Your task to perform on an android device: snooze an email in the gmail app Image 0: 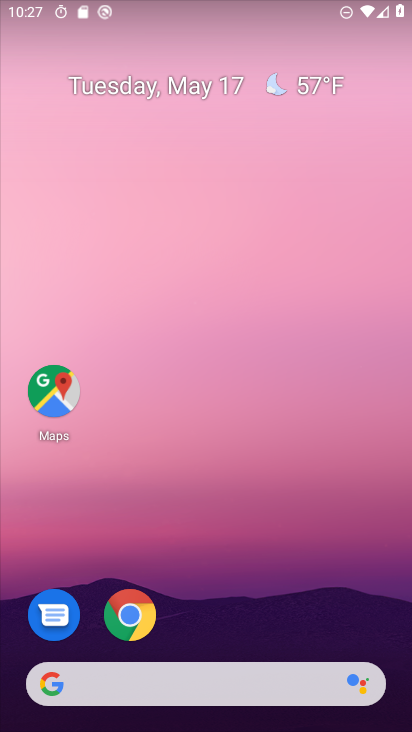
Step 0: drag from (265, 595) to (187, 70)
Your task to perform on an android device: snooze an email in the gmail app Image 1: 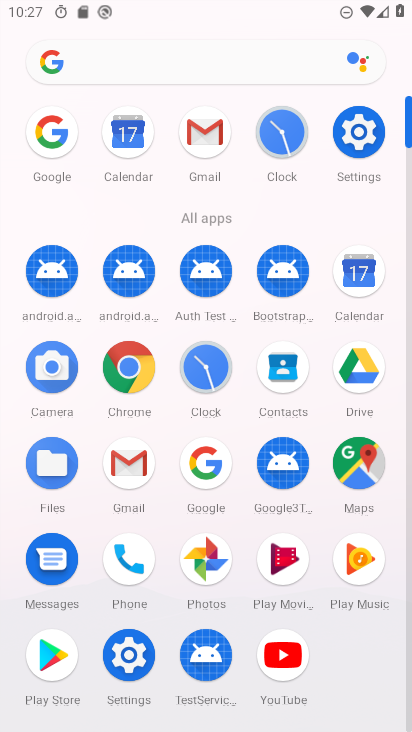
Step 1: click (205, 142)
Your task to perform on an android device: snooze an email in the gmail app Image 2: 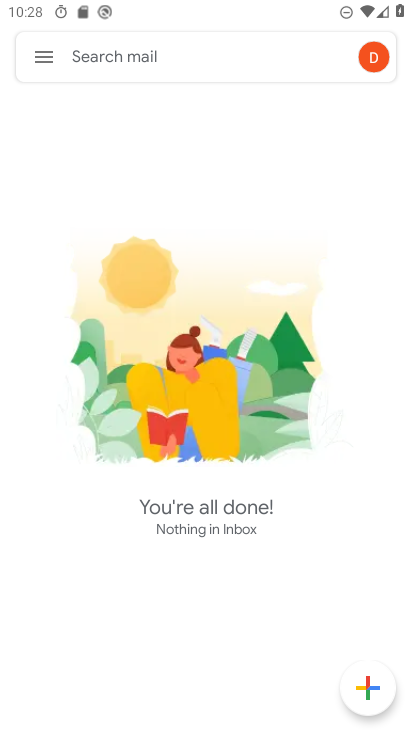
Step 2: click (47, 62)
Your task to perform on an android device: snooze an email in the gmail app Image 3: 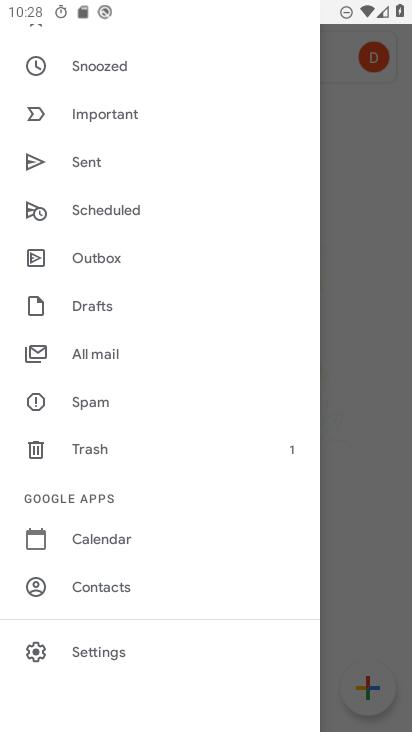
Step 3: click (129, 343)
Your task to perform on an android device: snooze an email in the gmail app Image 4: 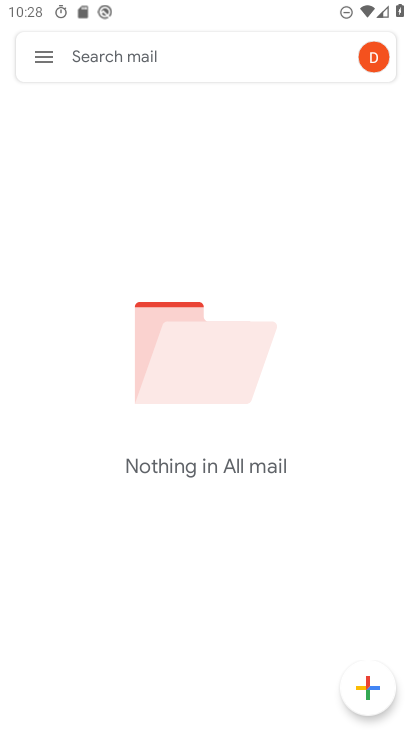
Step 4: task complete